Your task to perform on an android device: all mails in gmail Image 0: 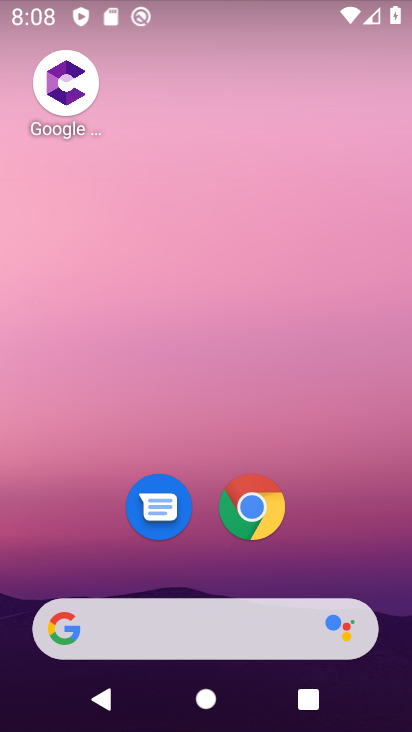
Step 0: drag from (222, 571) to (224, 19)
Your task to perform on an android device: all mails in gmail Image 1: 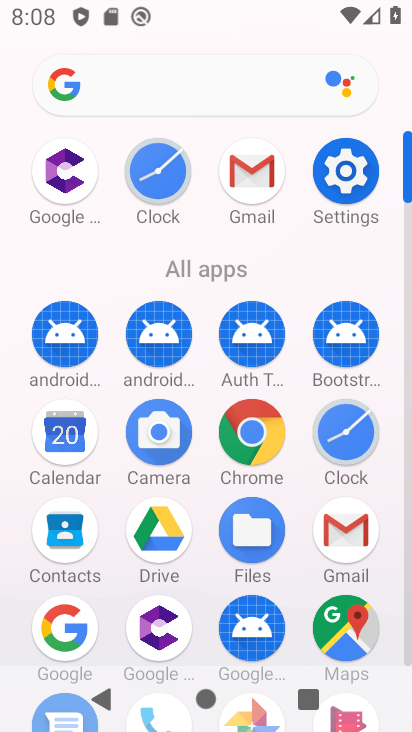
Step 1: click (353, 531)
Your task to perform on an android device: all mails in gmail Image 2: 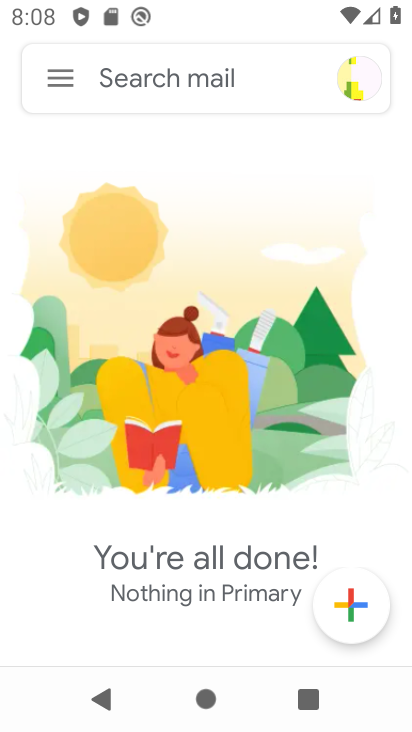
Step 2: click (58, 83)
Your task to perform on an android device: all mails in gmail Image 3: 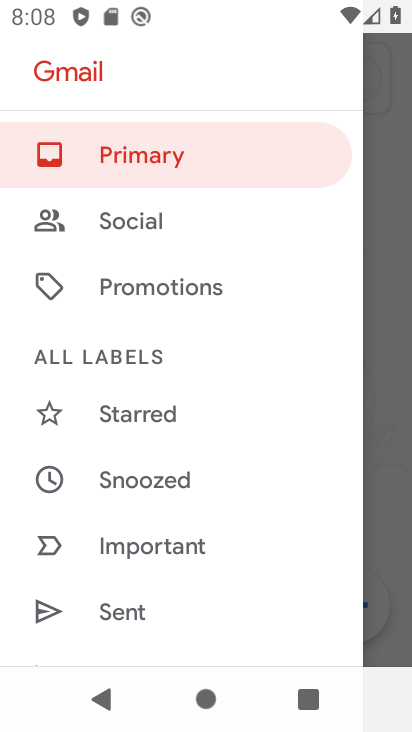
Step 3: drag from (193, 509) to (206, 62)
Your task to perform on an android device: all mails in gmail Image 4: 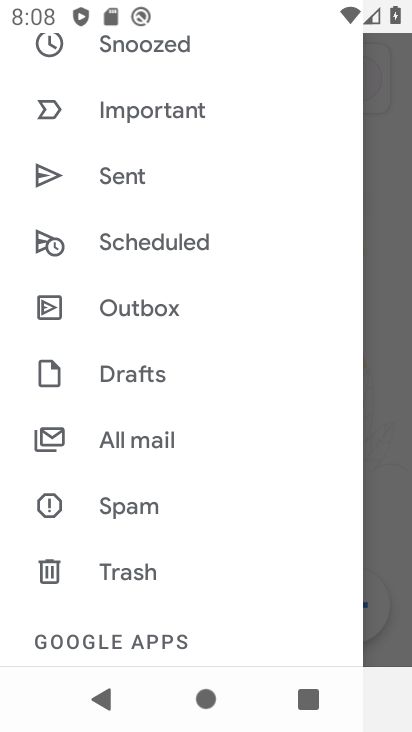
Step 4: click (155, 446)
Your task to perform on an android device: all mails in gmail Image 5: 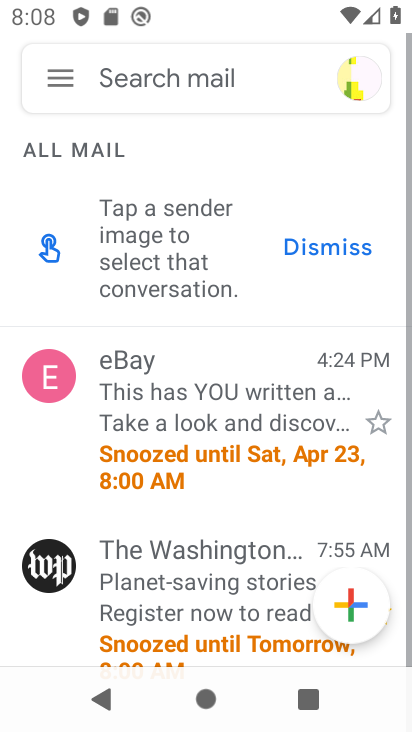
Step 5: task complete